Your task to perform on an android device: Open the phone app and click the voicemail tab. Image 0: 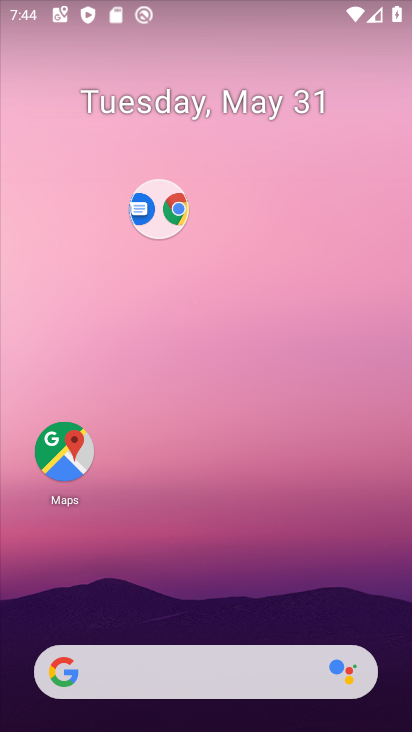
Step 0: drag from (187, 578) to (122, 240)
Your task to perform on an android device: Open the phone app and click the voicemail tab. Image 1: 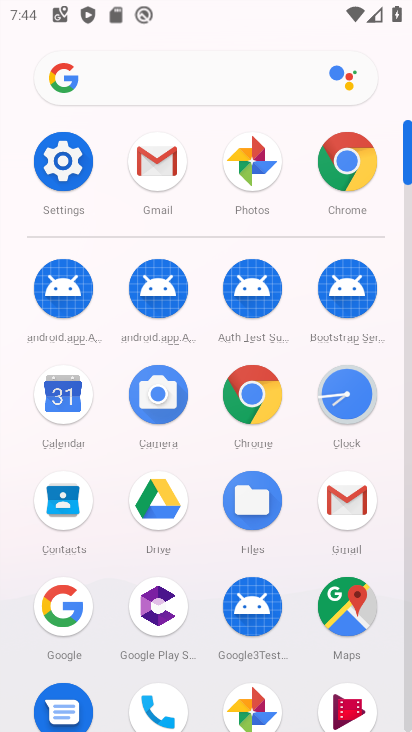
Step 1: click (167, 707)
Your task to perform on an android device: Open the phone app and click the voicemail tab. Image 2: 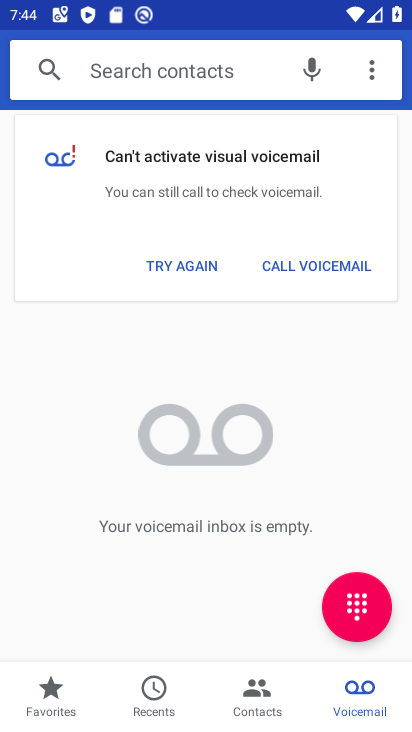
Step 2: click (363, 708)
Your task to perform on an android device: Open the phone app and click the voicemail tab. Image 3: 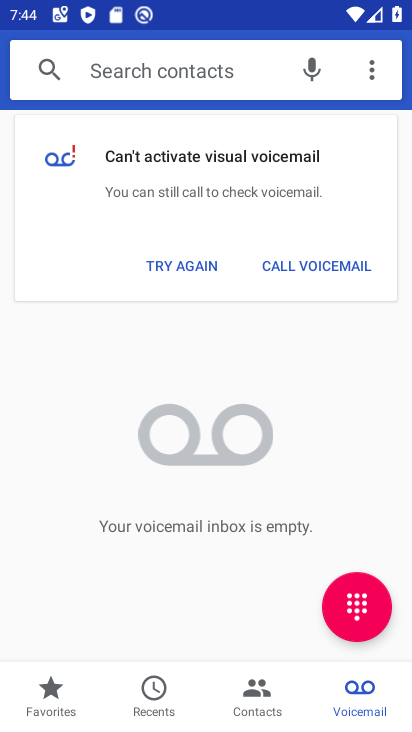
Step 3: task complete